Your task to perform on an android device: Open settings Image 0: 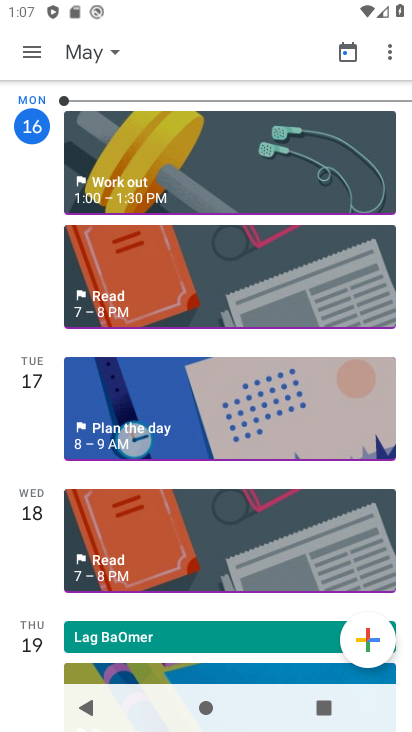
Step 0: press home button
Your task to perform on an android device: Open settings Image 1: 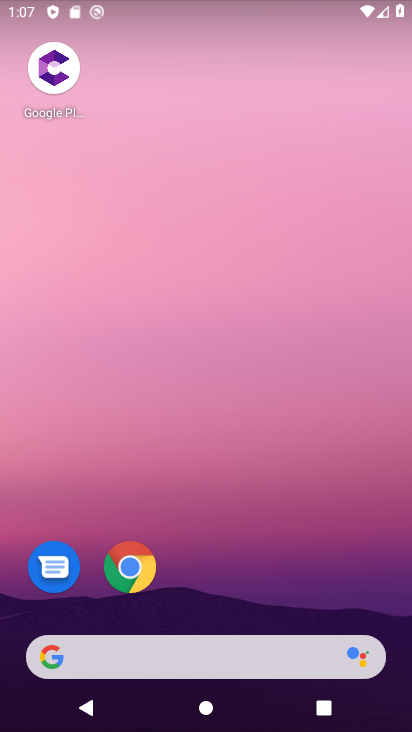
Step 1: drag from (212, 528) to (181, 34)
Your task to perform on an android device: Open settings Image 2: 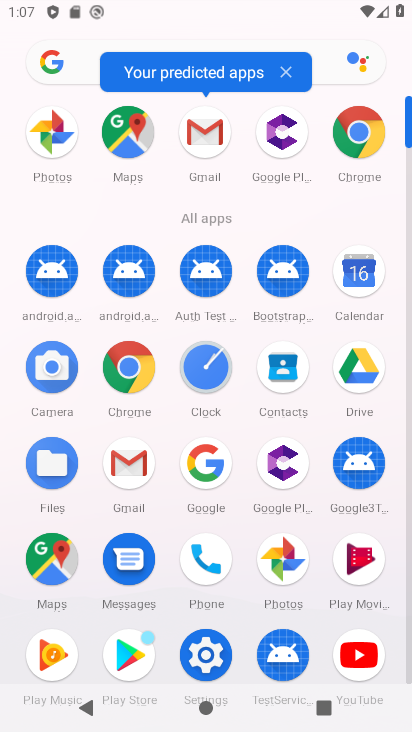
Step 2: click (206, 658)
Your task to perform on an android device: Open settings Image 3: 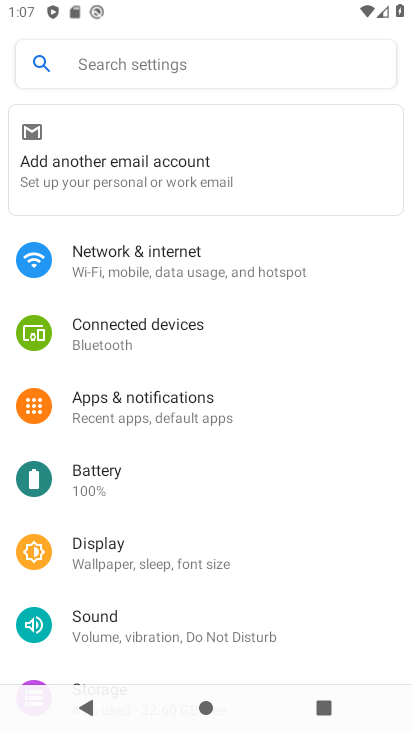
Step 3: task complete